Your task to perform on an android device: turn off priority inbox in the gmail app Image 0: 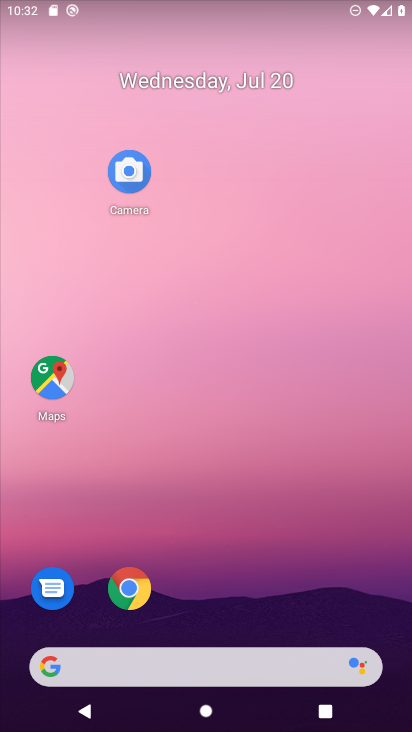
Step 0: press home button
Your task to perform on an android device: turn off priority inbox in the gmail app Image 1: 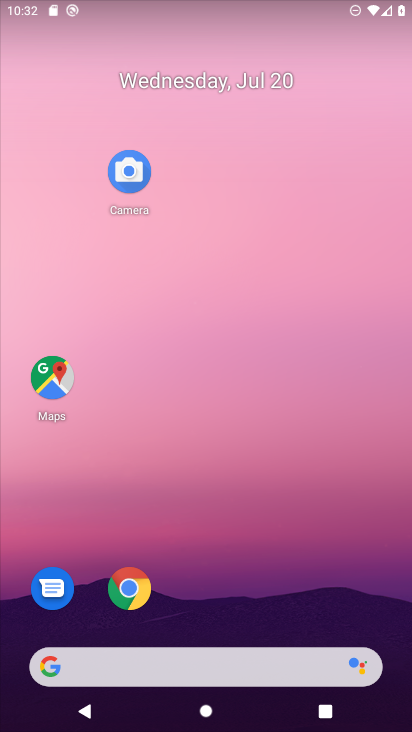
Step 1: drag from (267, 609) to (233, 163)
Your task to perform on an android device: turn off priority inbox in the gmail app Image 2: 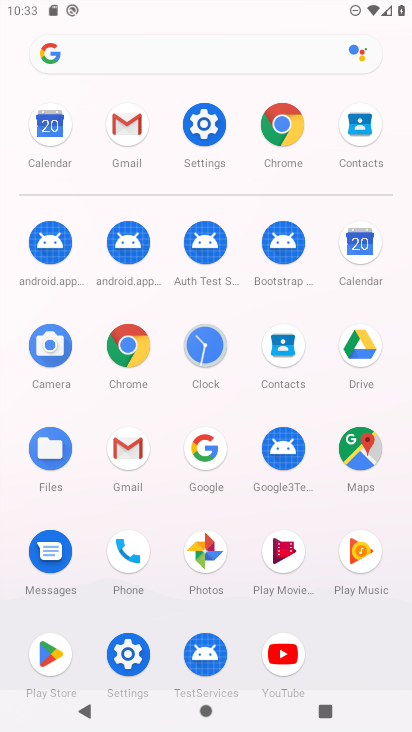
Step 2: click (119, 122)
Your task to perform on an android device: turn off priority inbox in the gmail app Image 3: 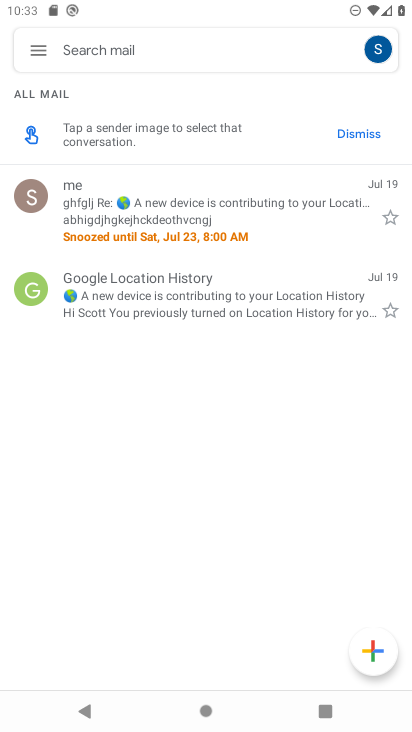
Step 3: click (27, 49)
Your task to perform on an android device: turn off priority inbox in the gmail app Image 4: 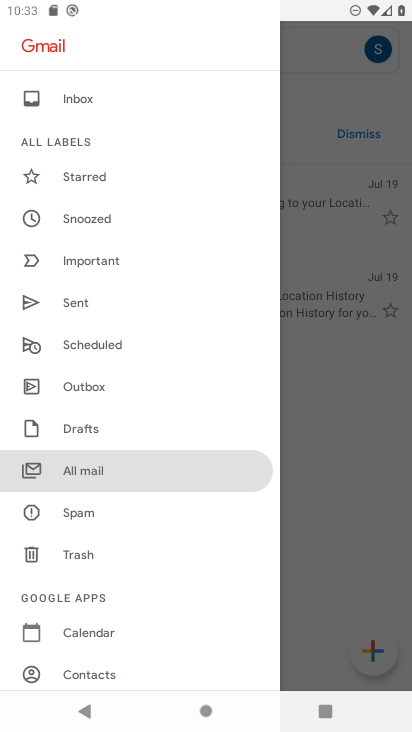
Step 4: drag from (113, 593) to (138, 190)
Your task to perform on an android device: turn off priority inbox in the gmail app Image 5: 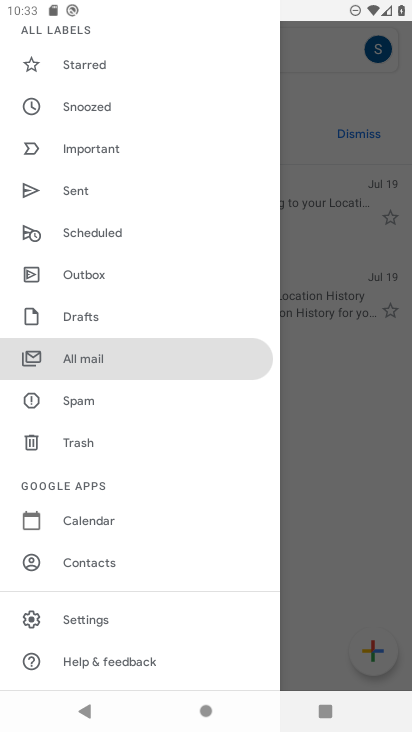
Step 5: click (87, 619)
Your task to perform on an android device: turn off priority inbox in the gmail app Image 6: 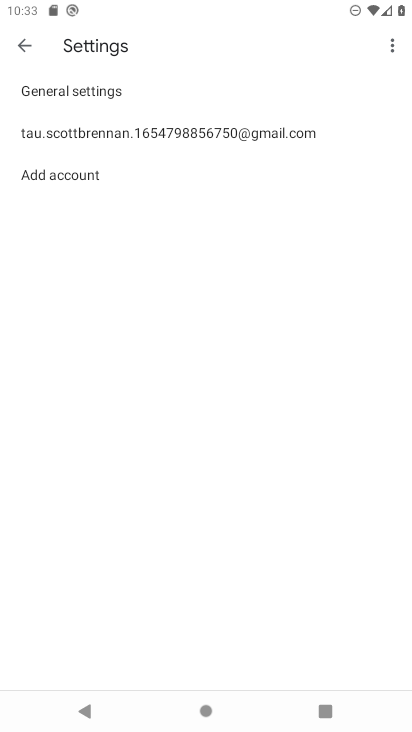
Step 6: click (60, 135)
Your task to perform on an android device: turn off priority inbox in the gmail app Image 7: 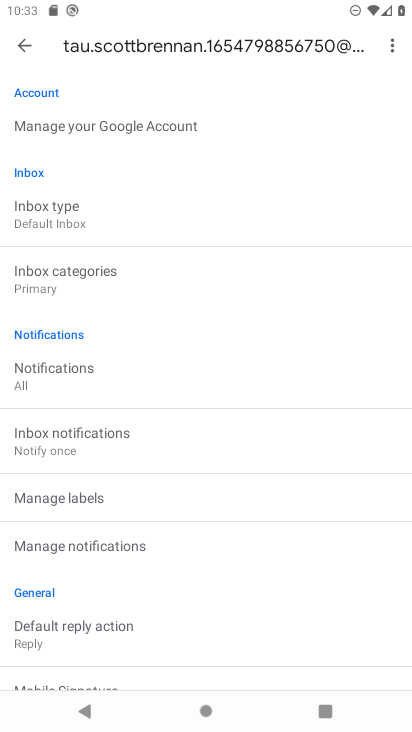
Step 7: click (44, 224)
Your task to perform on an android device: turn off priority inbox in the gmail app Image 8: 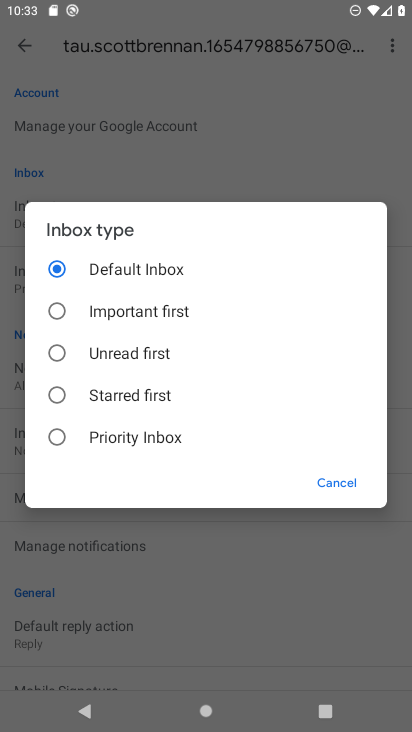
Step 8: task complete